Your task to perform on an android device: Show me recent news Image 0: 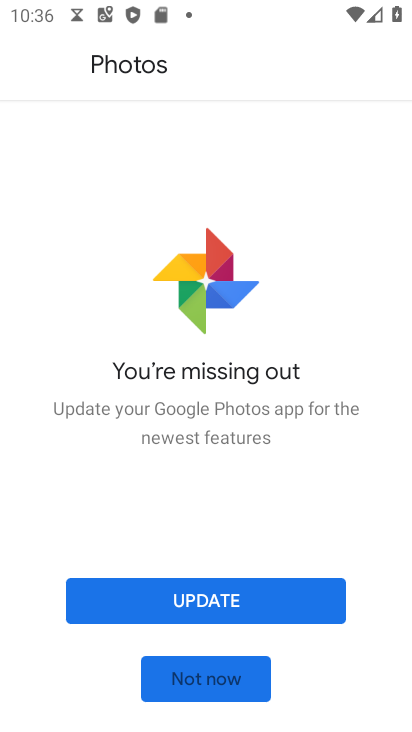
Step 0: press home button
Your task to perform on an android device: Show me recent news Image 1: 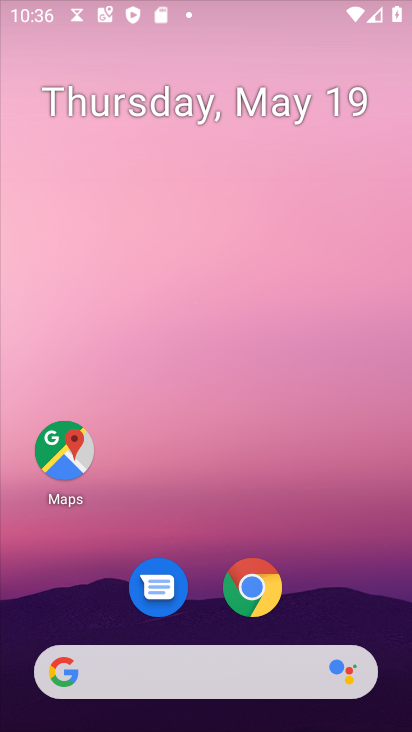
Step 1: click (284, 333)
Your task to perform on an android device: Show me recent news Image 2: 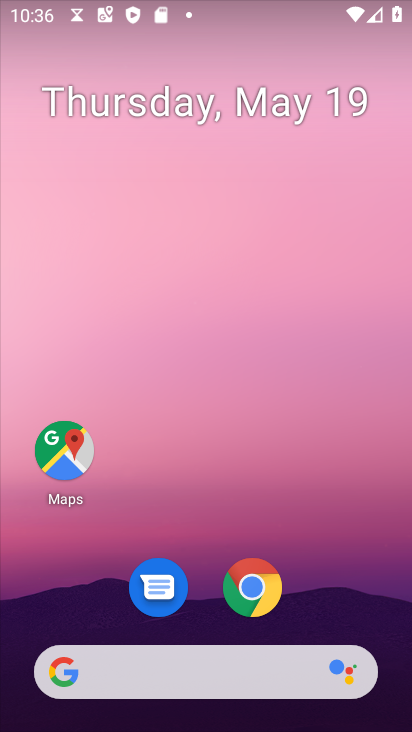
Step 2: task complete